Your task to perform on an android device: Go to CNN.com Image 0: 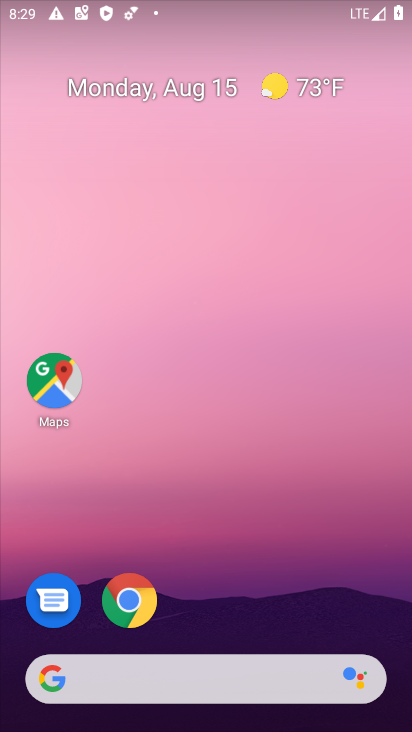
Step 0: click (130, 594)
Your task to perform on an android device: Go to CNN.com Image 1: 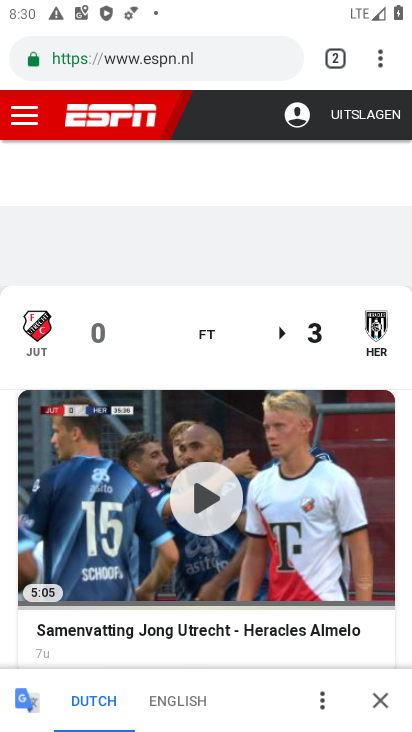
Step 1: click (381, 61)
Your task to perform on an android device: Go to CNN.com Image 2: 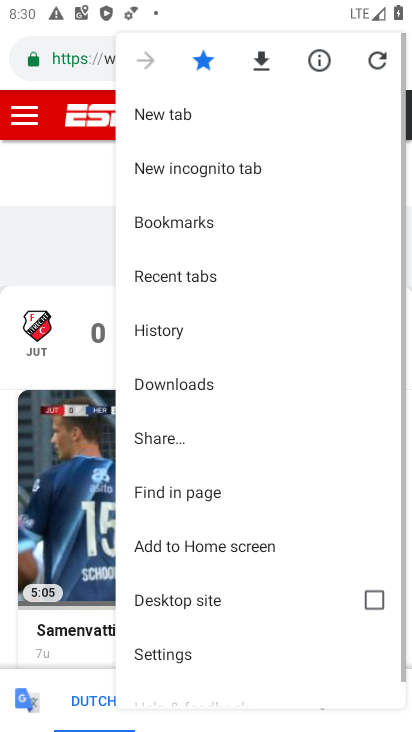
Step 2: click (159, 114)
Your task to perform on an android device: Go to CNN.com Image 3: 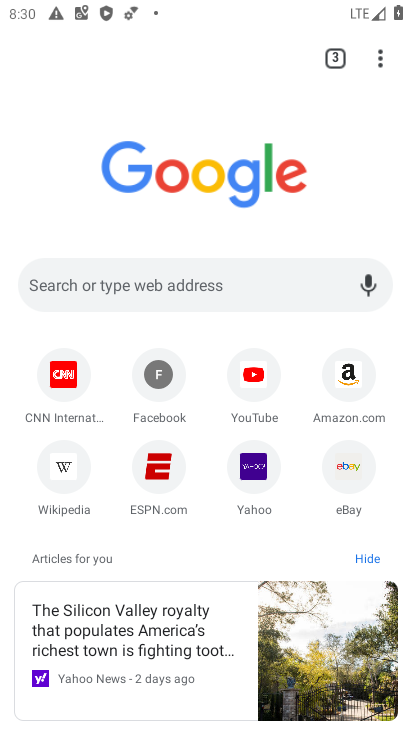
Step 3: click (53, 364)
Your task to perform on an android device: Go to CNN.com Image 4: 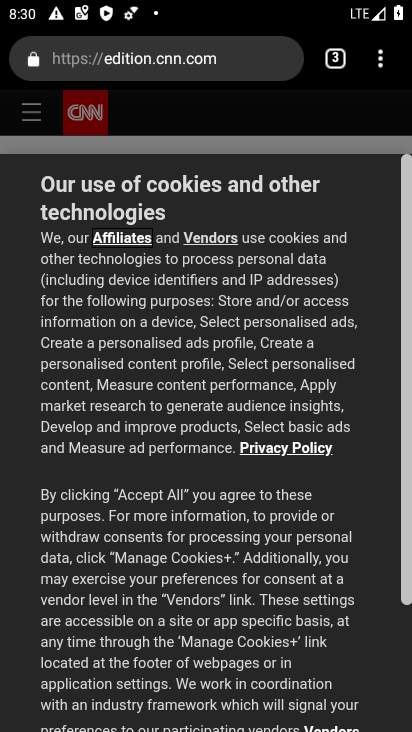
Step 4: task complete